Your task to perform on an android device: Open internet settings Image 0: 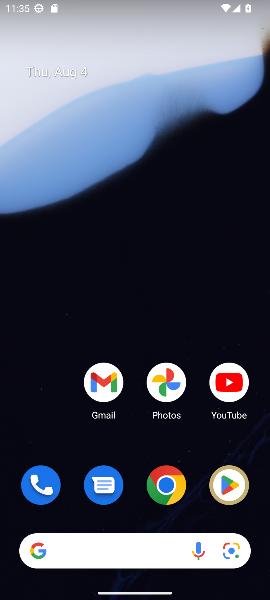
Step 0: drag from (142, 502) to (156, 55)
Your task to perform on an android device: Open internet settings Image 1: 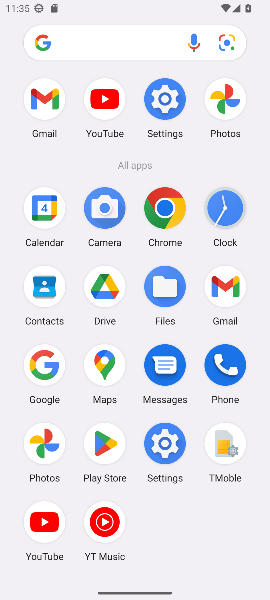
Step 1: click (171, 93)
Your task to perform on an android device: Open internet settings Image 2: 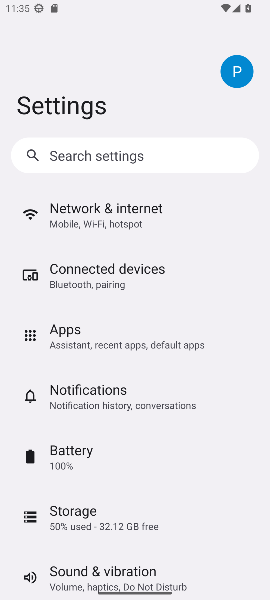
Step 2: click (87, 216)
Your task to perform on an android device: Open internet settings Image 3: 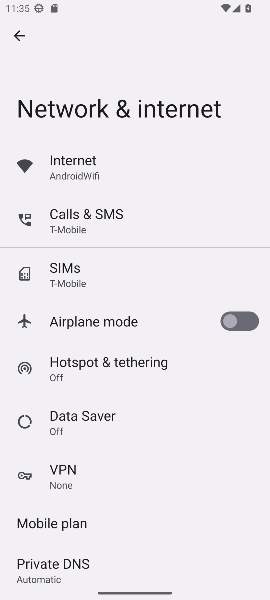
Step 3: task complete